Your task to perform on an android device: turn on data saver in the chrome app Image 0: 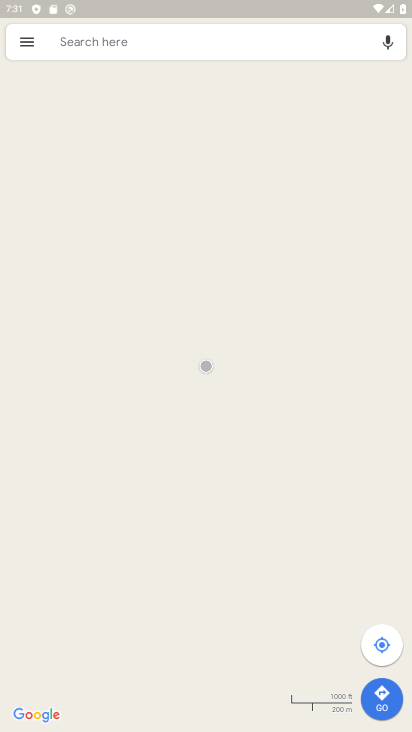
Step 0: press home button
Your task to perform on an android device: turn on data saver in the chrome app Image 1: 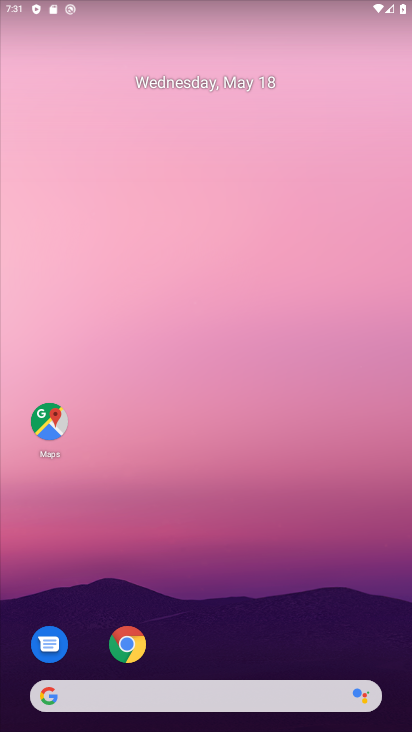
Step 1: drag from (209, 710) to (360, 116)
Your task to perform on an android device: turn on data saver in the chrome app Image 2: 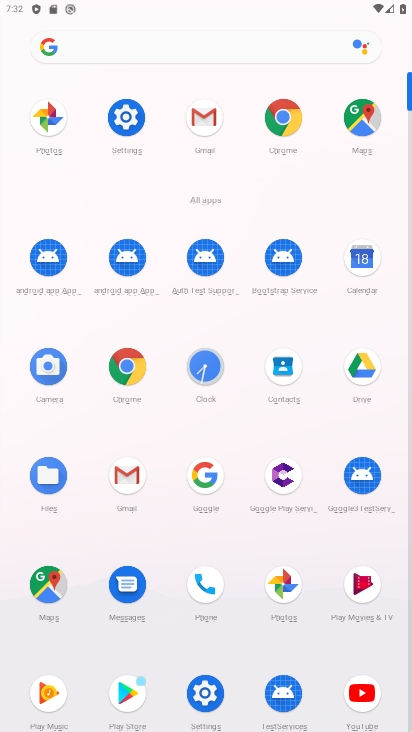
Step 2: click (276, 144)
Your task to perform on an android device: turn on data saver in the chrome app Image 3: 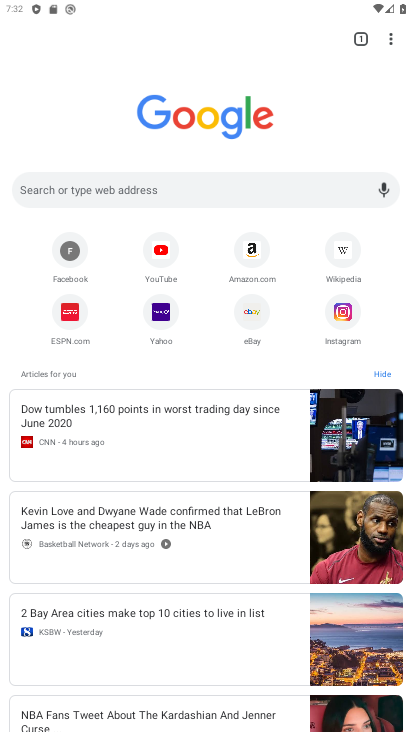
Step 3: click (380, 49)
Your task to perform on an android device: turn on data saver in the chrome app Image 4: 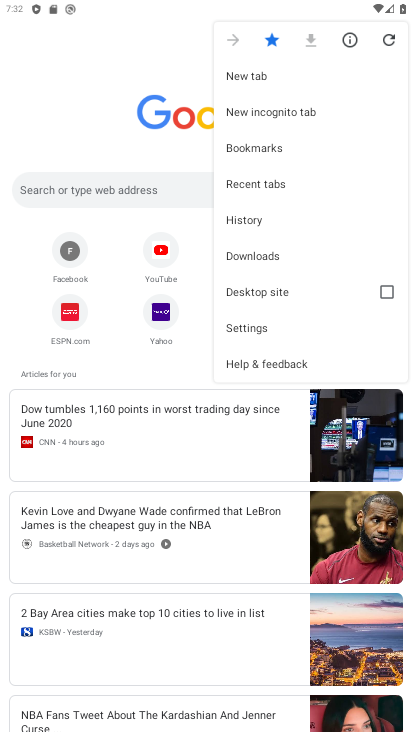
Step 4: click (255, 331)
Your task to perform on an android device: turn on data saver in the chrome app Image 5: 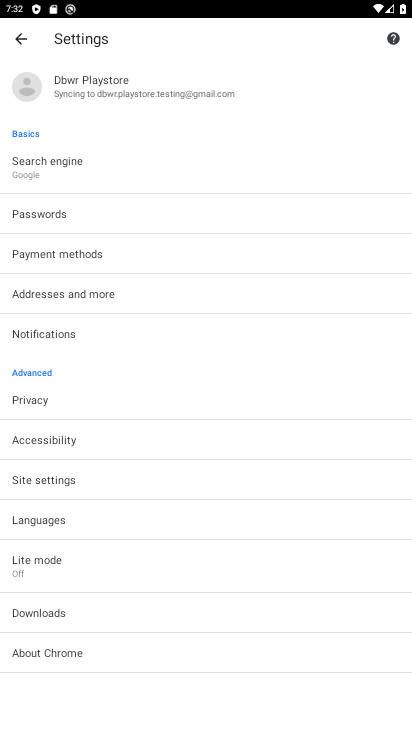
Step 5: click (47, 561)
Your task to perform on an android device: turn on data saver in the chrome app Image 6: 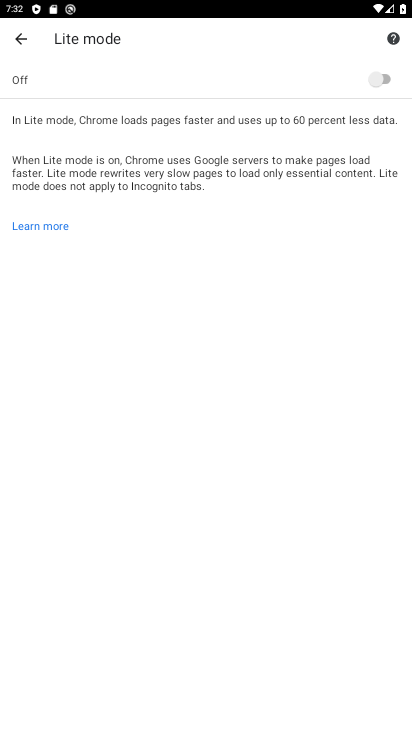
Step 6: click (385, 89)
Your task to perform on an android device: turn on data saver in the chrome app Image 7: 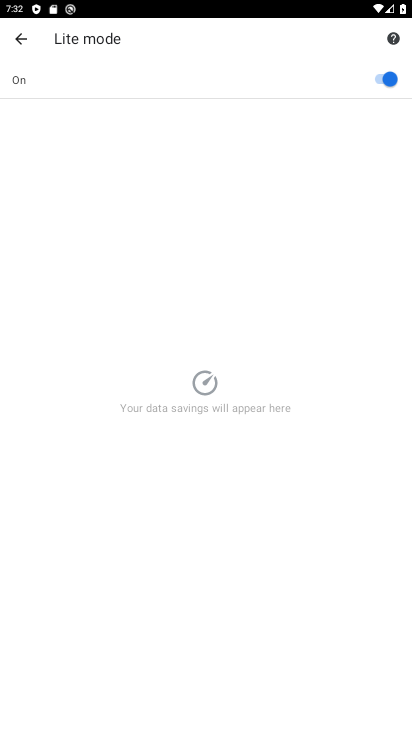
Step 7: task complete